Your task to perform on an android device: check the backup settings in the google photos Image 0: 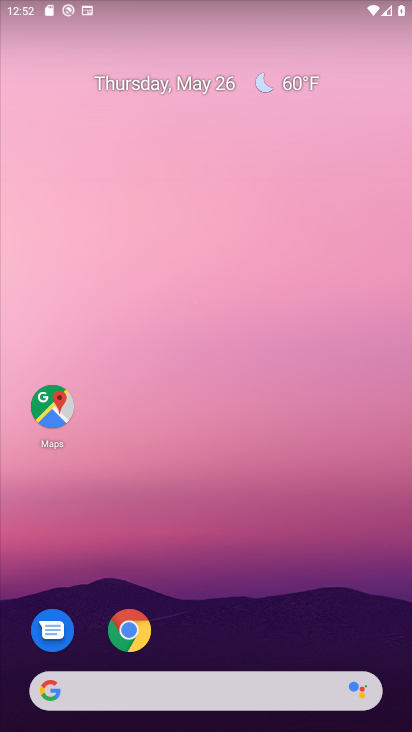
Step 0: drag from (284, 618) to (223, 100)
Your task to perform on an android device: check the backup settings in the google photos Image 1: 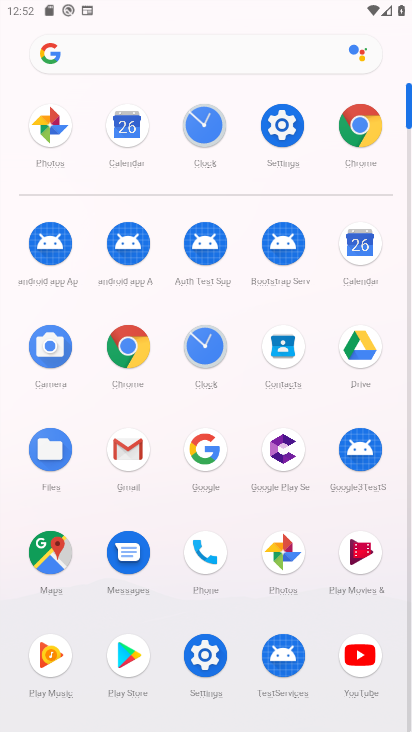
Step 1: click (287, 561)
Your task to perform on an android device: check the backup settings in the google photos Image 2: 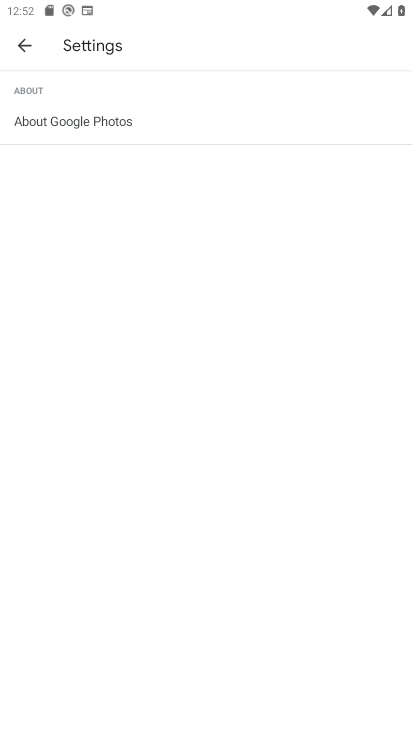
Step 2: press home button
Your task to perform on an android device: check the backup settings in the google photos Image 3: 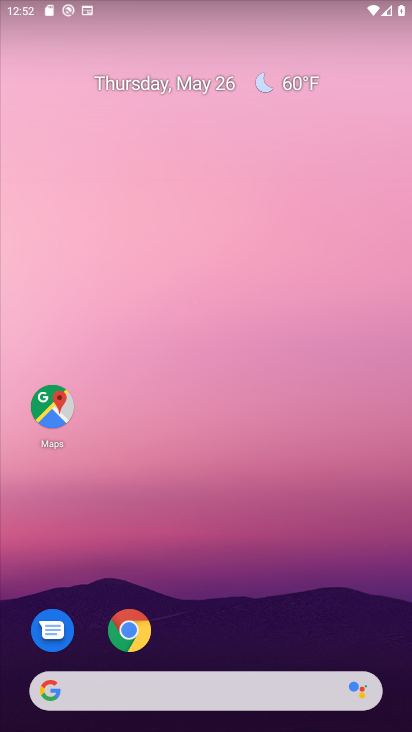
Step 3: drag from (307, 631) to (256, 67)
Your task to perform on an android device: check the backup settings in the google photos Image 4: 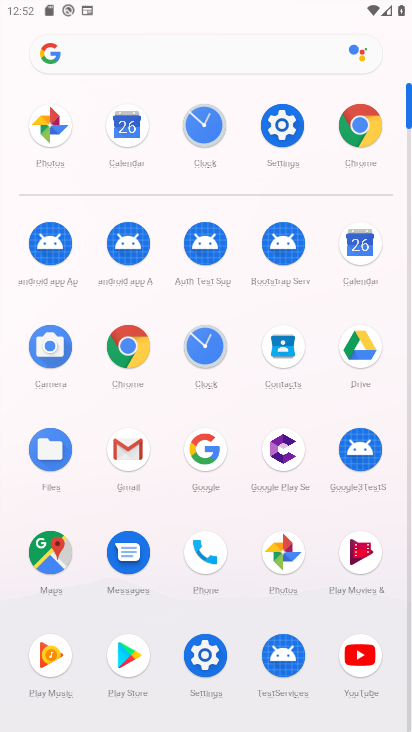
Step 4: click (47, 138)
Your task to perform on an android device: check the backup settings in the google photos Image 5: 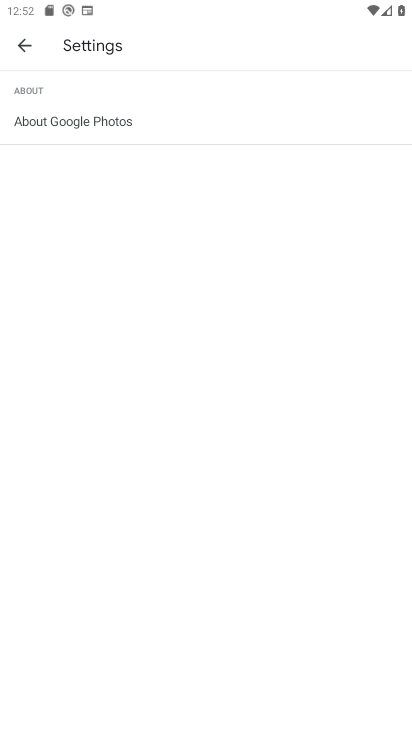
Step 5: click (18, 48)
Your task to perform on an android device: check the backup settings in the google photos Image 6: 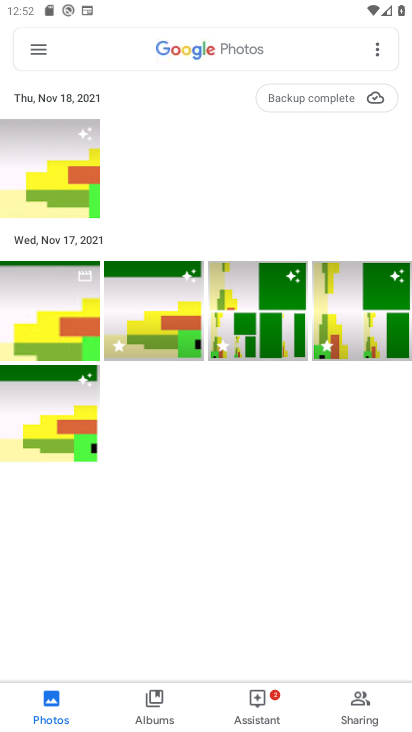
Step 6: click (36, 67)
Your task to perform on an android device: check the backup settings in the google photos Image 7: 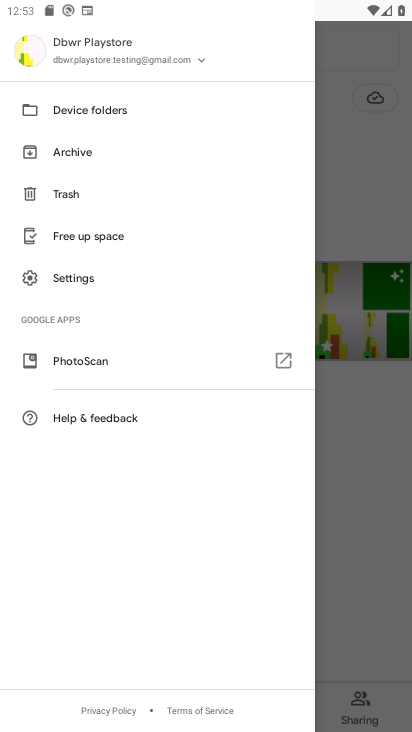
Step 7: click (78, 287)
Your task to perform on an android device: check the backup settings in the google photos Image 8: 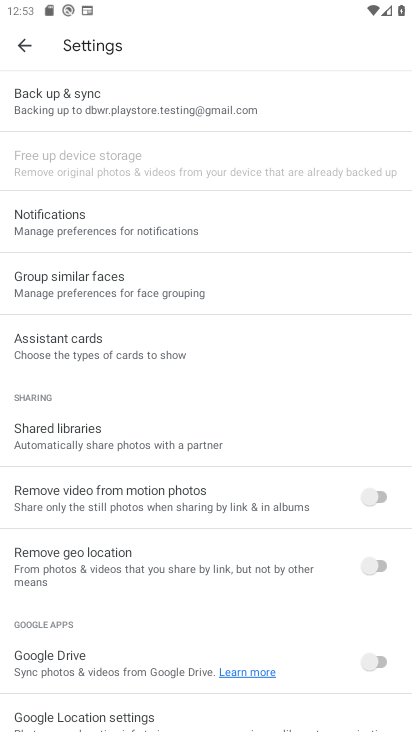
Step 8: click (97, 112)
Your task to perform on an android device: check the backup settings in the google photos Image 9: 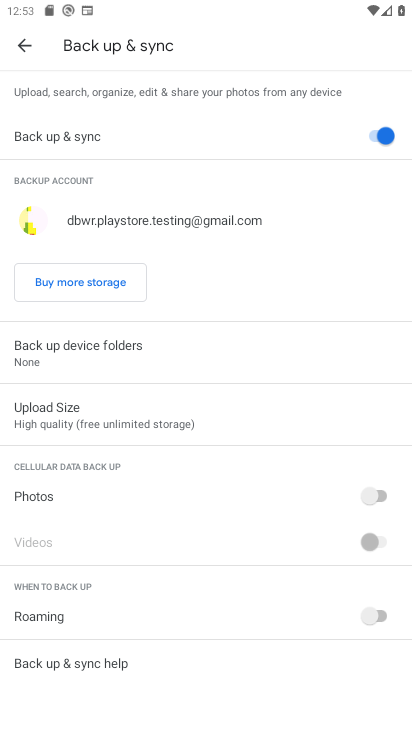
Step 9: task complete